Your task to perform on an android device: check google app version Image 0: 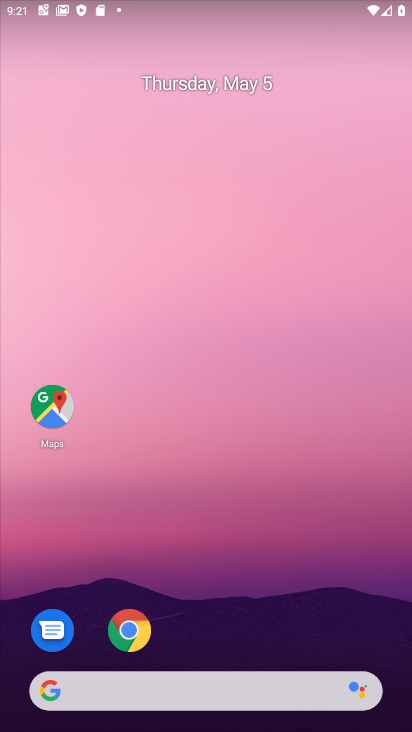
Step 0: drag from (145, 436) to (83, 134)
Your task to perform on an android device: check google app version Image 1: 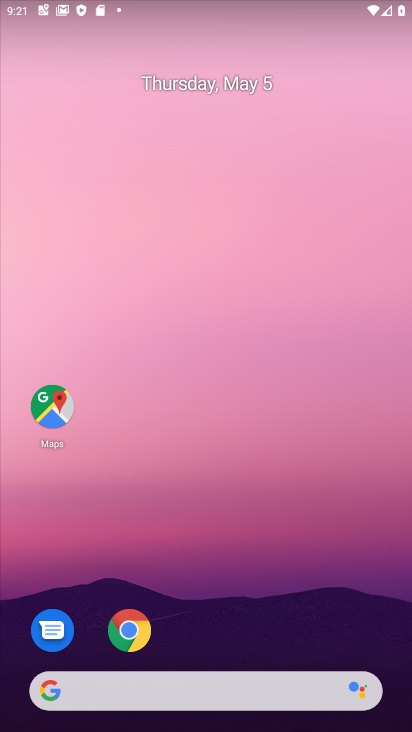
Step 1: drag from (237, 518) to (202, 72)
Your task to perform on an android device: check google app version Image 2: 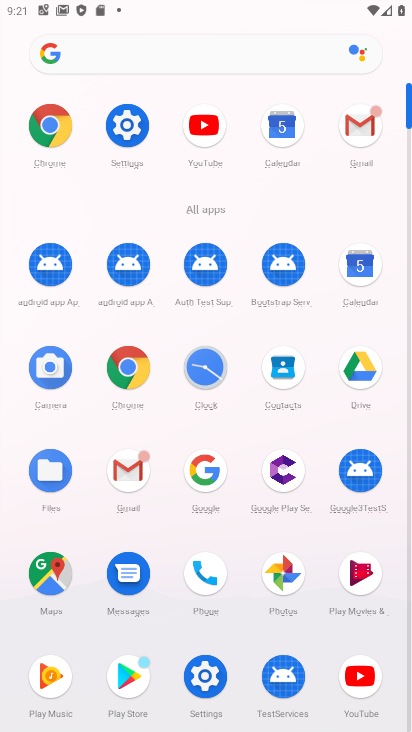
Step 2: click (209, 482)
Your task to perform on an android device: check google app version Image 3: 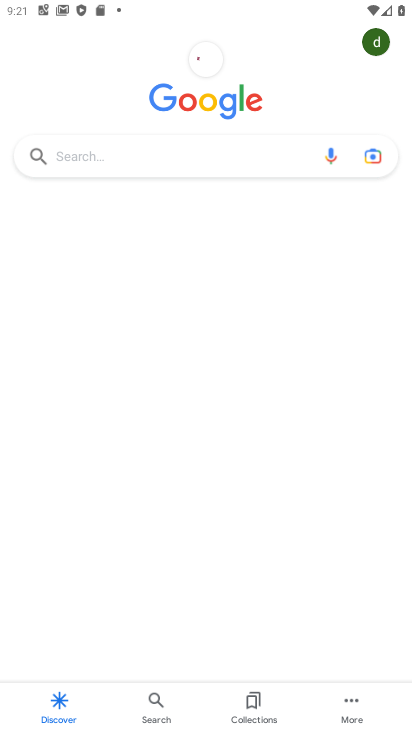
Step 3: click (353, 705)
Your task to perform on an android device: check google app version Image 4: 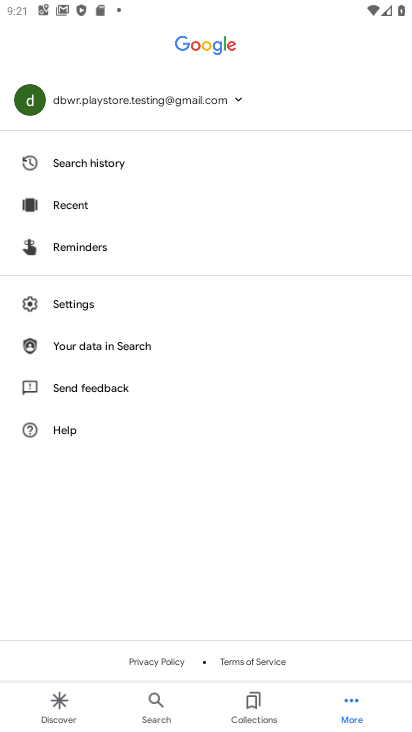
Step 4: click (64, 303)
Your task to perform on an android device: check google app version Image 5: 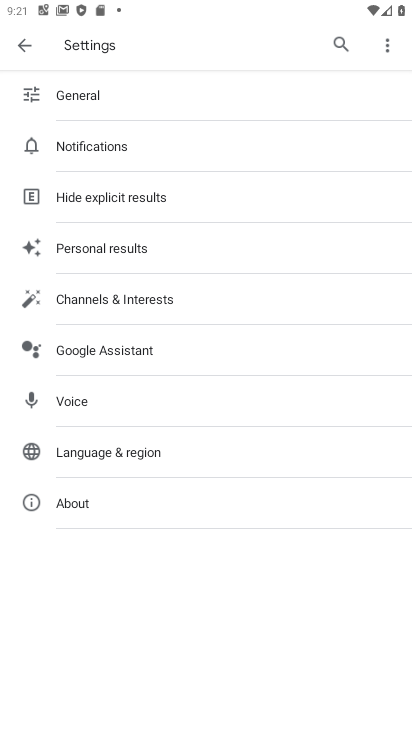
Step 5: click (66, 506)
Your task to perform on an android device: check google app version Image 6: 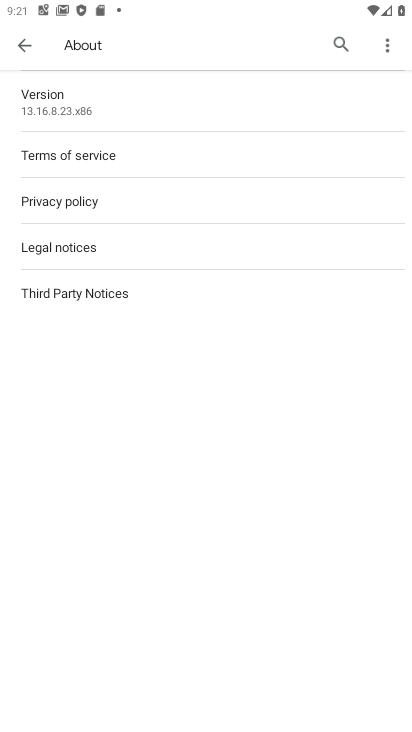
Step 6: task complete